Your task to perform on an android device: turn on translation in the chrome app Image 0: 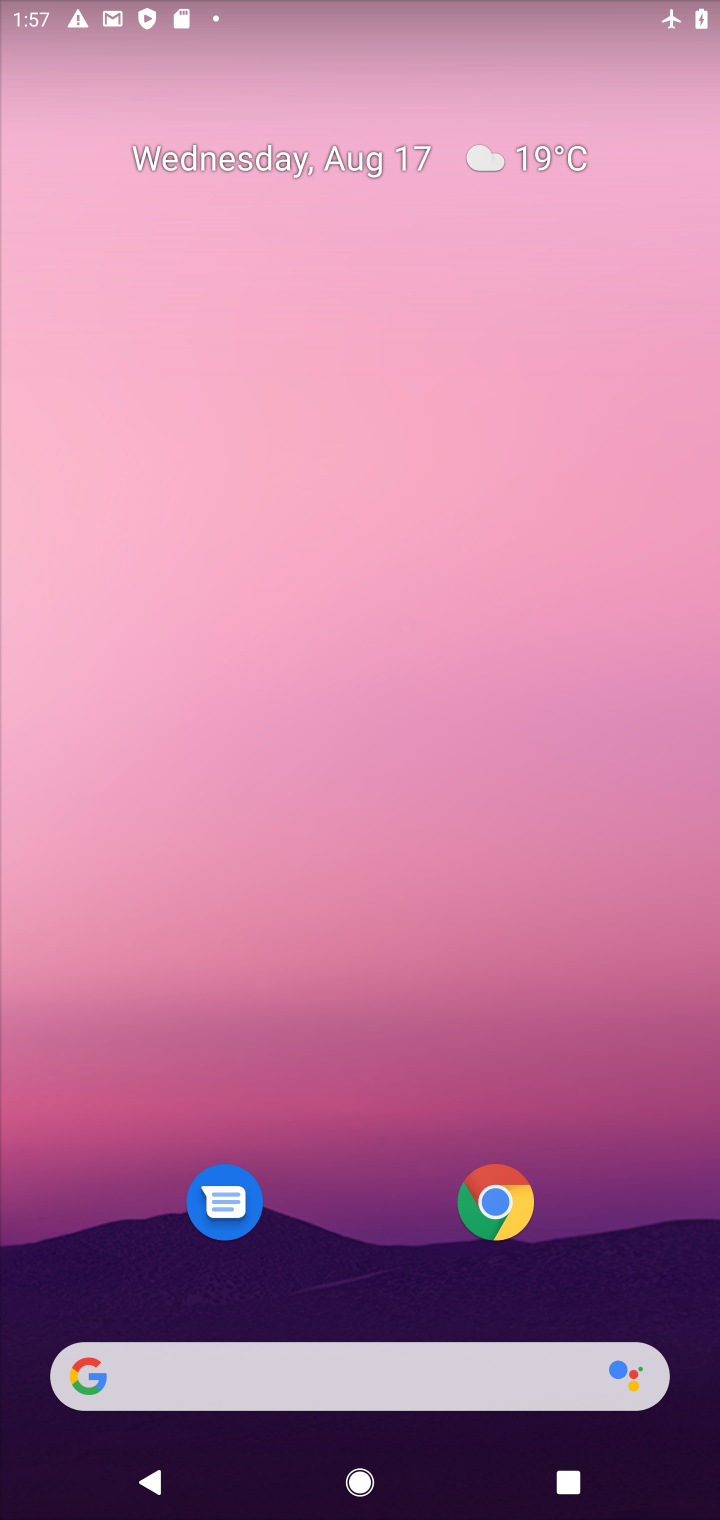
Step 0: drag from (361, 486) to (234, 16)
Your task to perform on an android device: turn on translation in the chrome app Image 1: 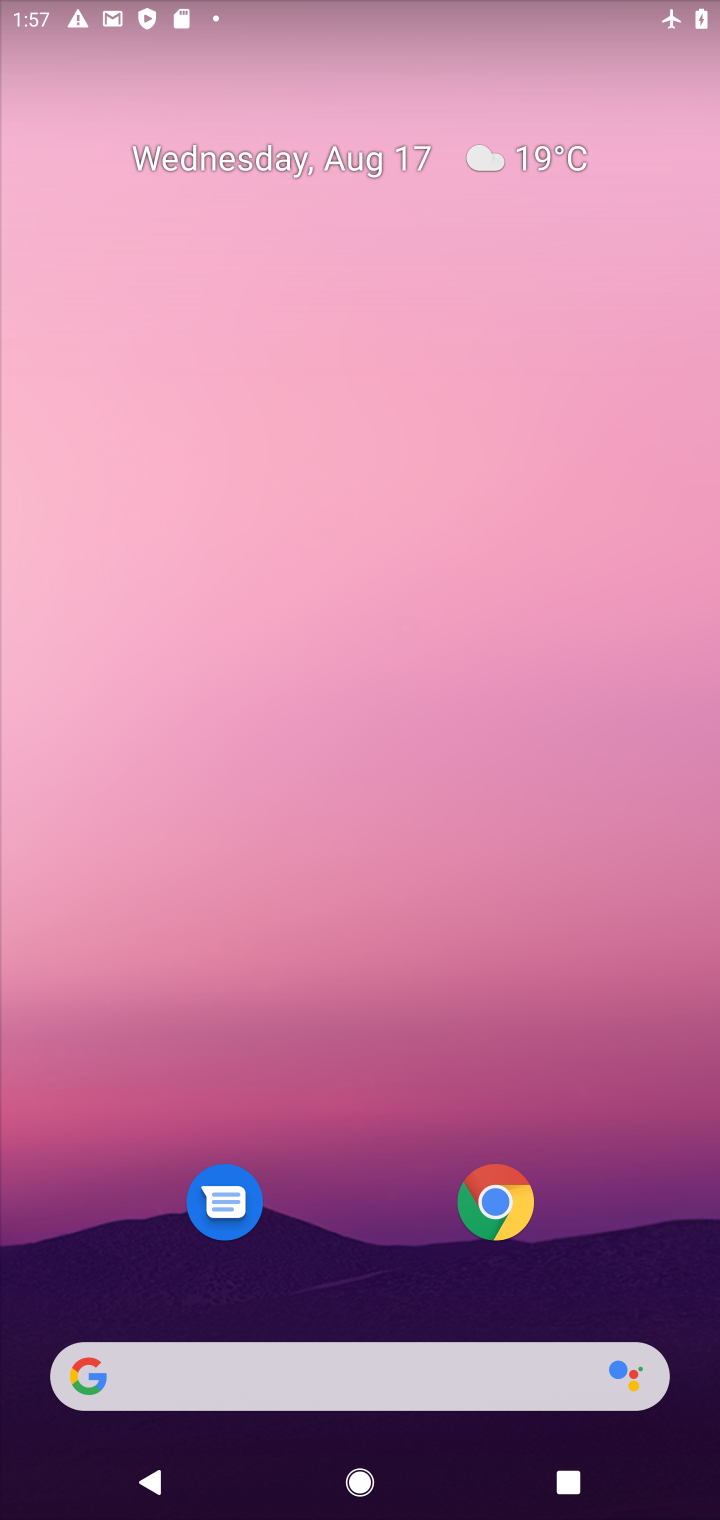
Step 1: click (507, 1208)
Your task to perform on an android device: turn on translation in the chrome app Image 2: 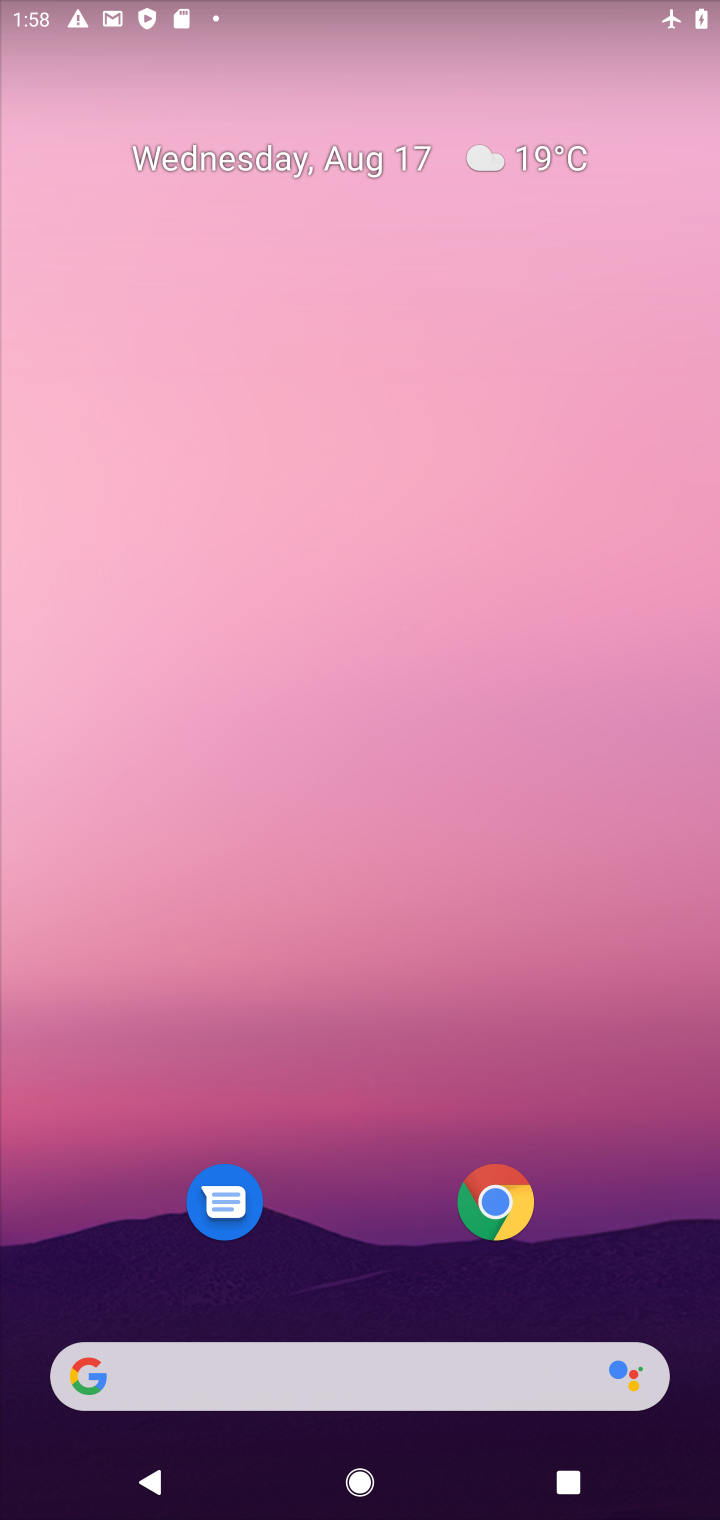
Step 2: drag from (402, 1277) to (493, 9)
Your task to perform on an android device: turn on translation in the chrome app Image 3: 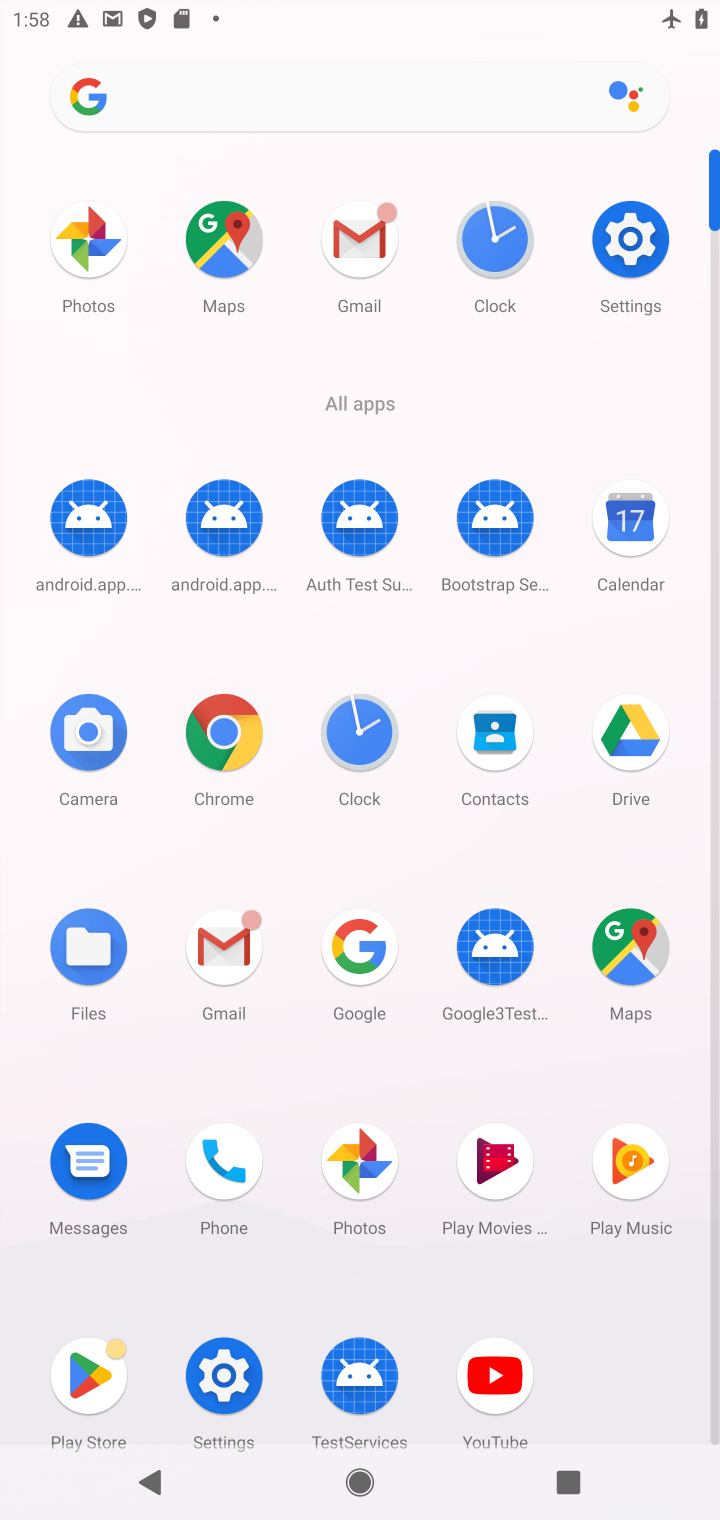
Step 3: click (222, 774)
Your task to perform on an android device: turn on translation in the chrome app Image 4: 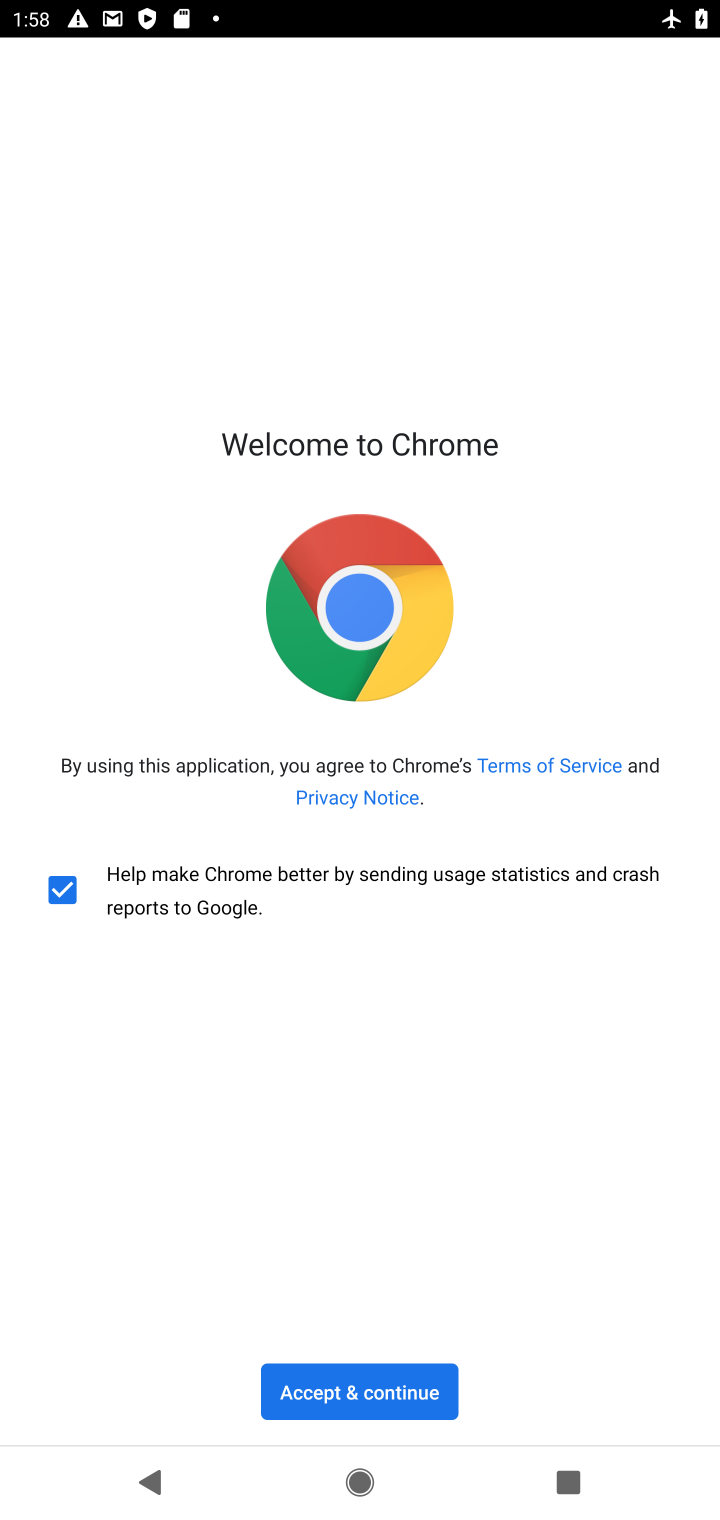
Step 4: click (362, 1393)
Your task to perform on an android device: turn on translation in the chrome app Image 5: 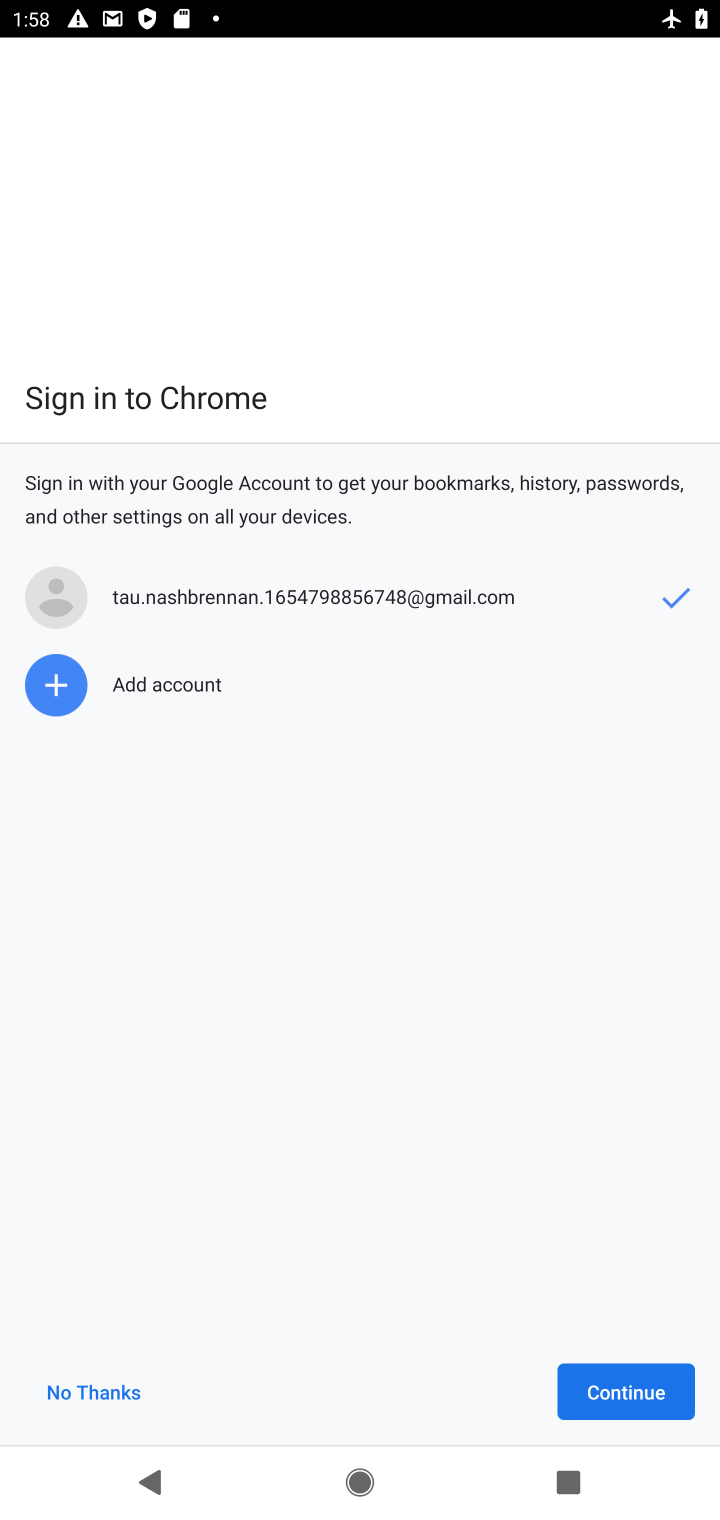
Step 5: click (649, 1377)
Your task to perform on an android device: turn on translation in the chrome app Image 6: 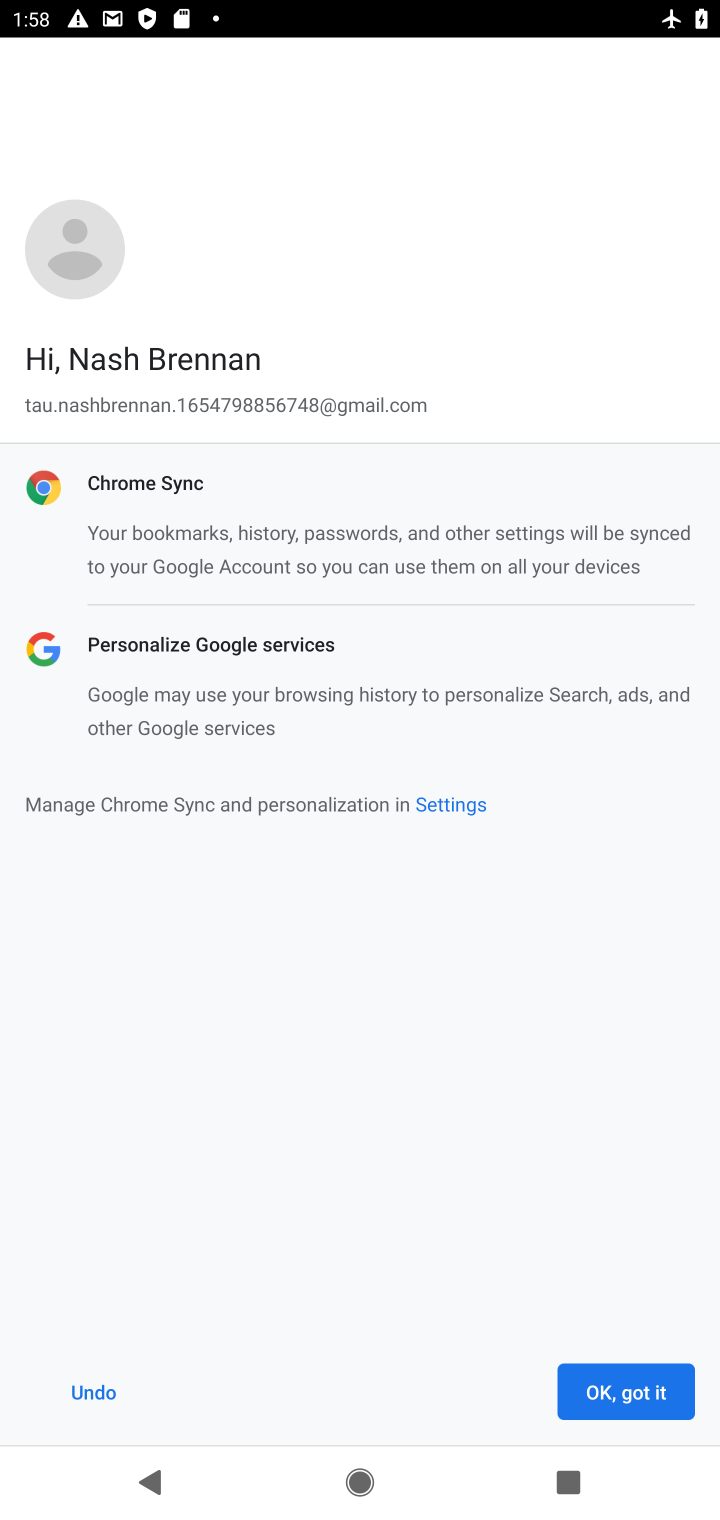
Step 6: click (650, 1383)
Your task to perform on an android device: turn on translation in the chrome app Image 7: 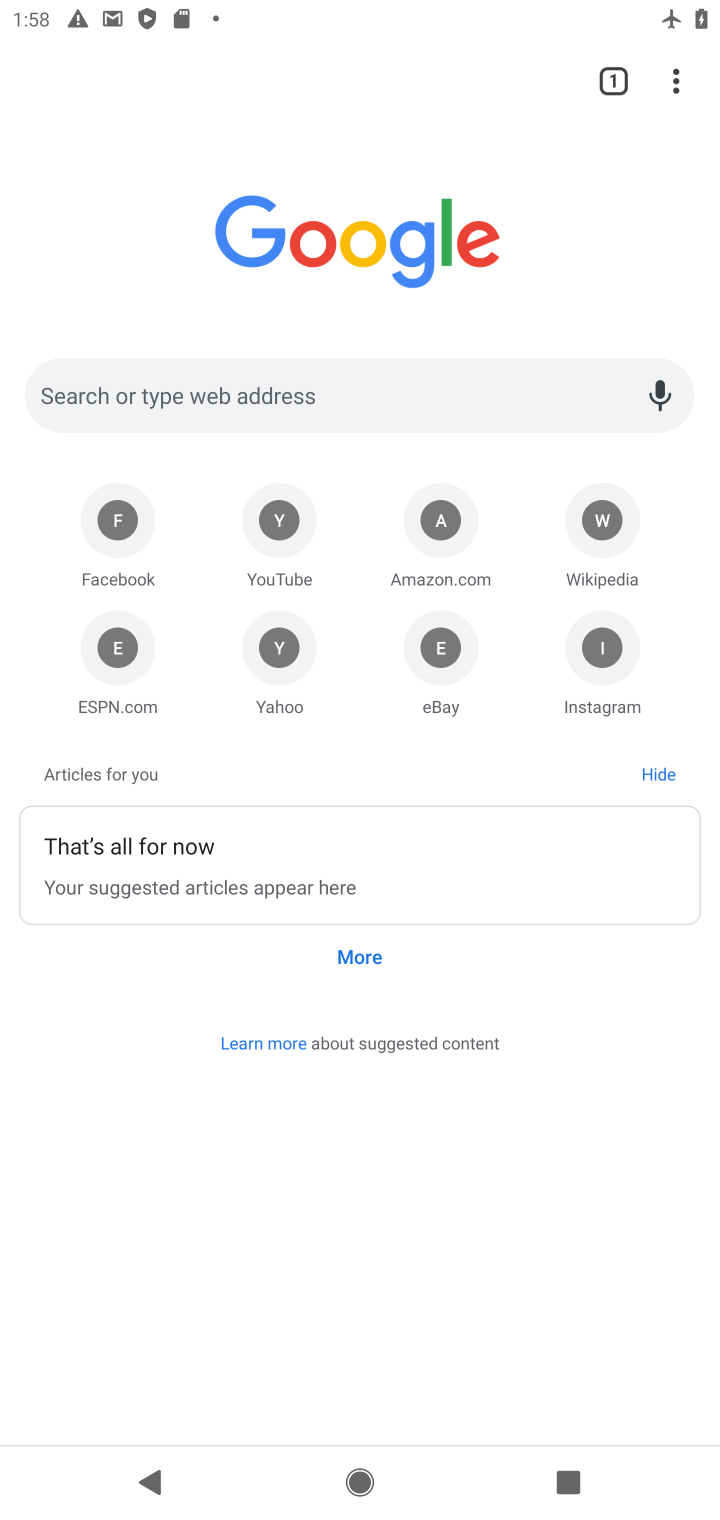
Step 7: click (675, 72)
Your task to perform on an android device: turn on translation in the chrome app Image 8: 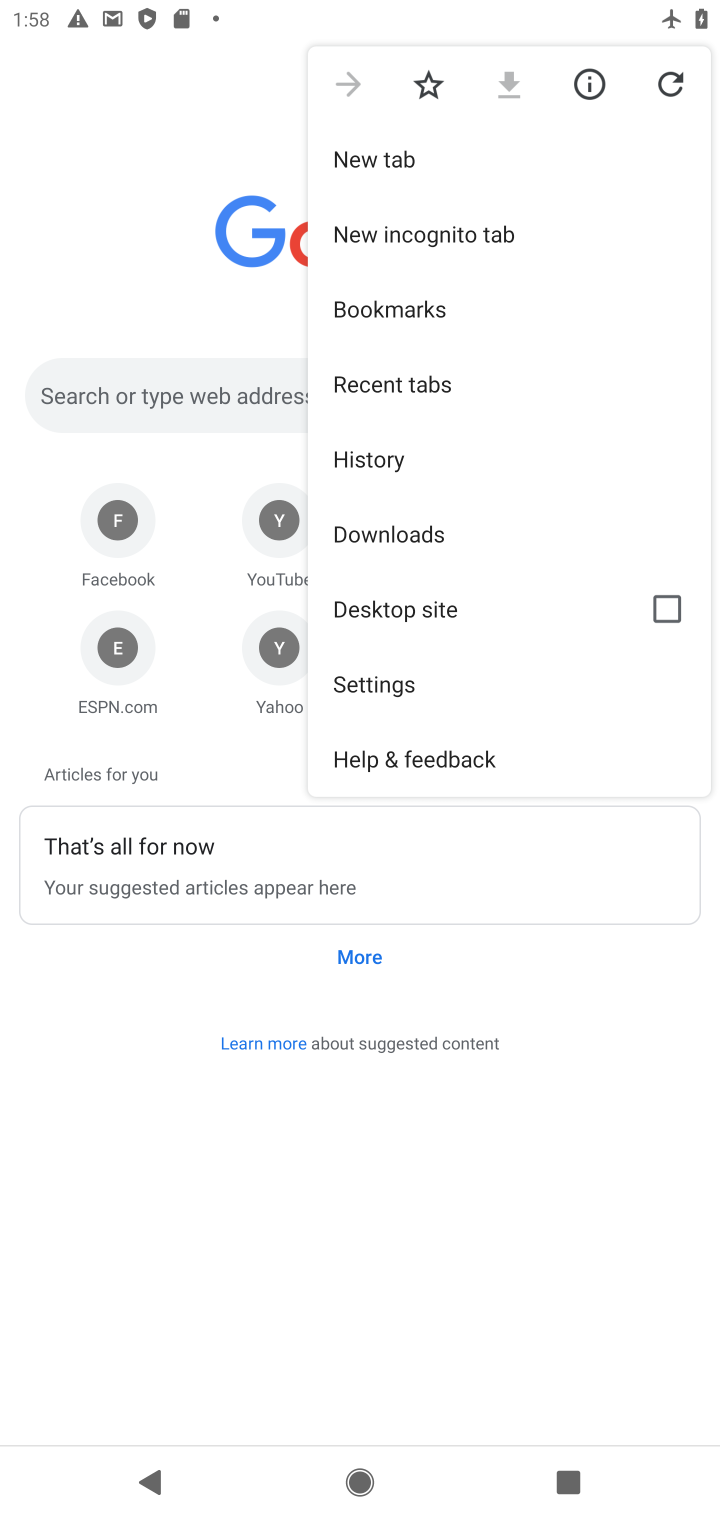
Step 8: click (381, 673)
Your task to perform on an android device: turn on translation in the chrome app Image 9: 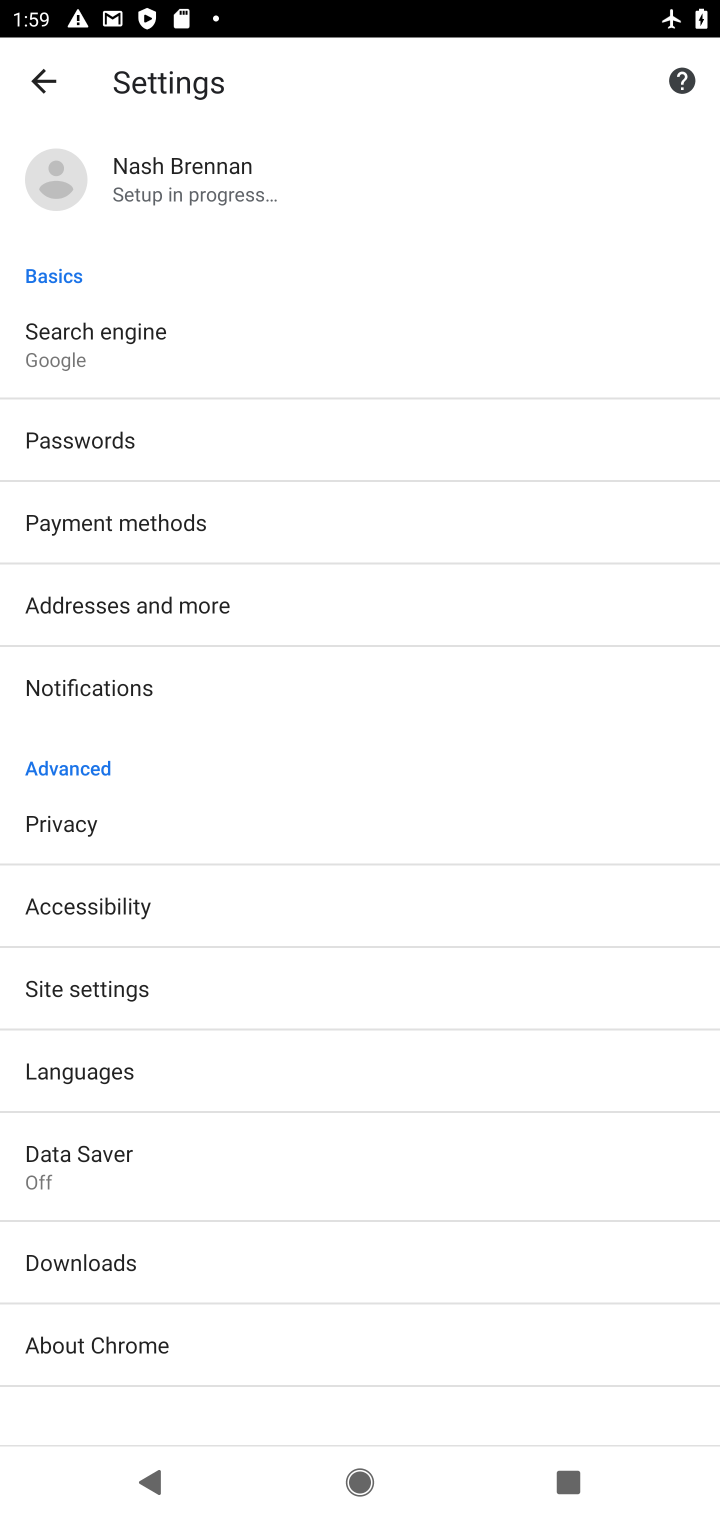
Step 9: click (111, 1074)
Your task to perform on an android device: turn on translation in the chrome app Image 10: 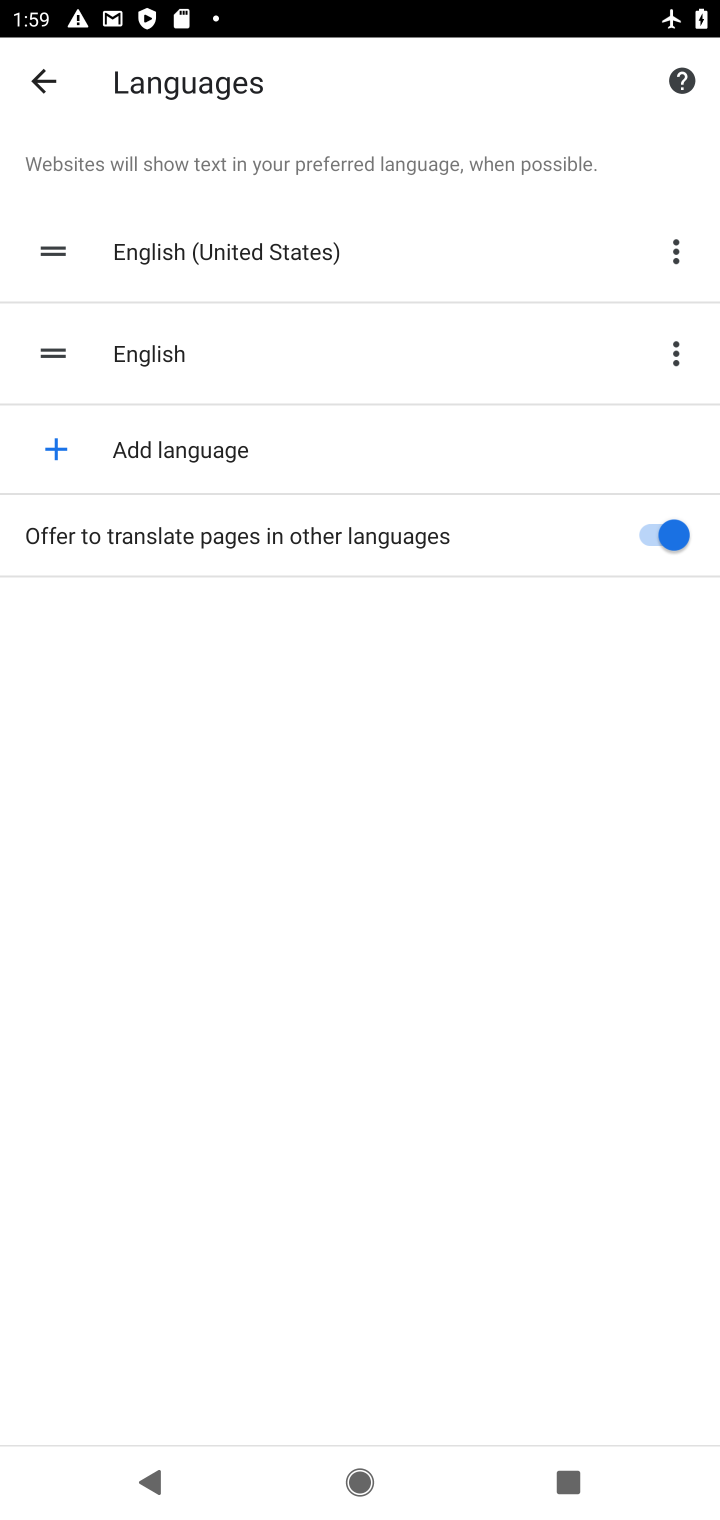
Step 10: task complete